Your task to perform on an android device: delete the emails in spam in the gmail app Image 0: 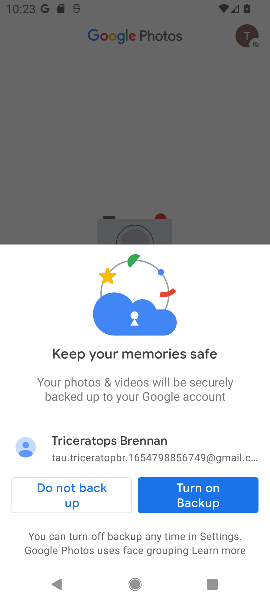
Step 0: click (75, 491)
Your task to perform on an android device: delete the emails in spam in the gmail app Image 1: 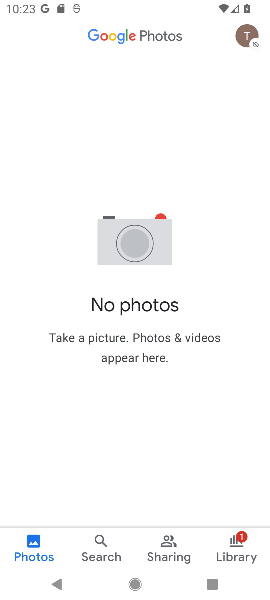
Step 1: press back button
Your task to perform on an android device: delete the emails in spam in the gmail app Image 2: 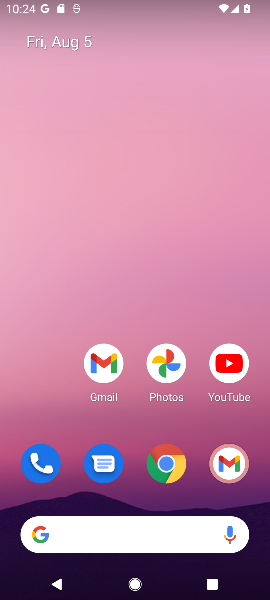
Step 2: drag from (180, 460) to (155, 16)
Your task to perform on an android device: delete the emails in spam in the gmail app Image 3: 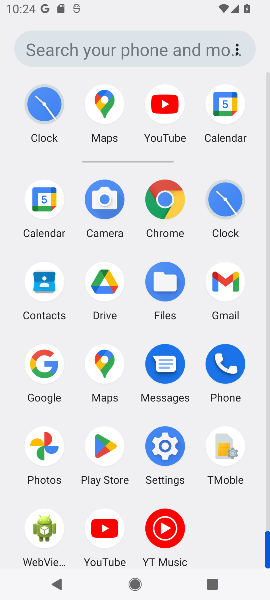
Step 3: drag from (208, 433) to (145, 0)
Your task to perform on an android device: delete the emails in spam in the gmail app Image 4: 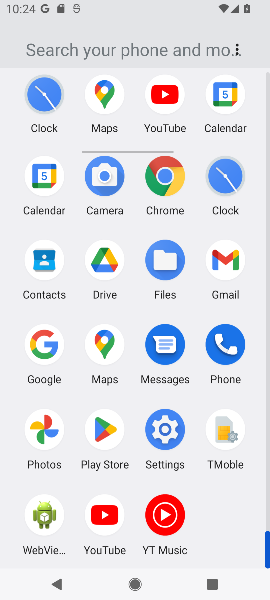
Step 4: drag from (161, 411) to (127, 114)
Your task to perform on an android device: delete the emails in spam in the gmail app Image 5: 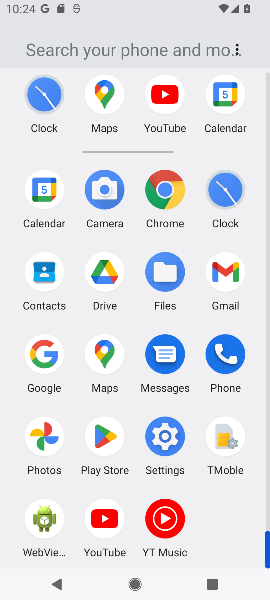
Step 5: click (221, 257)
Your task to perform on an android device: delete the emails in spam in the gmail app Image 6: 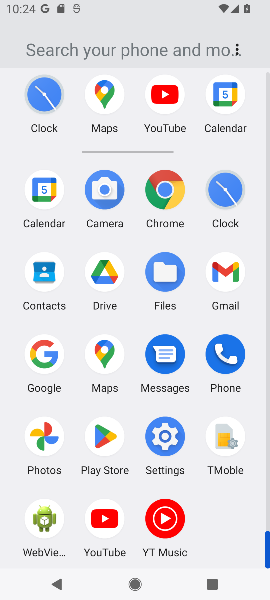
Step 6: click (221, 257)
Your task to perform on an android device: delete the emails in spam in the gmail app Image 7: 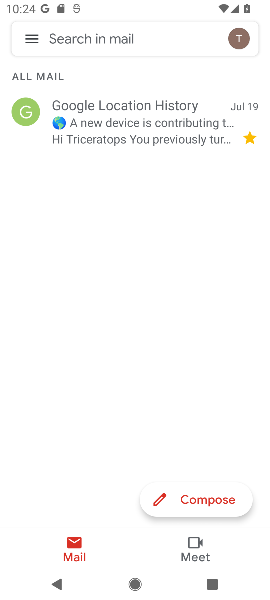
Step 7: click (221, 258)
Your task to perform on an android device: delete the emails in spam in the gmail app Image 8: 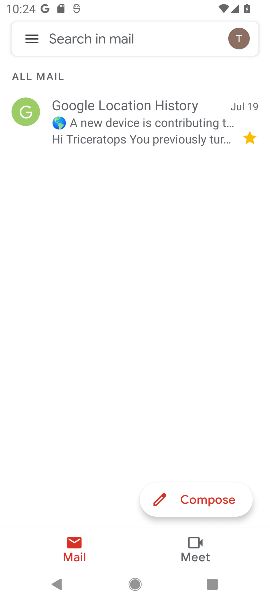
Step 8: click (32, 35)
Your task to perform on an android device: delete the emails in spam in the gmail app Image 9: 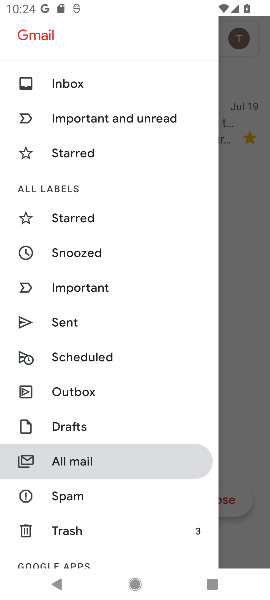
Step 9: click (74, 495)
Your task to perform on an android device: delete the emails in spam in the gmail app Image 10: 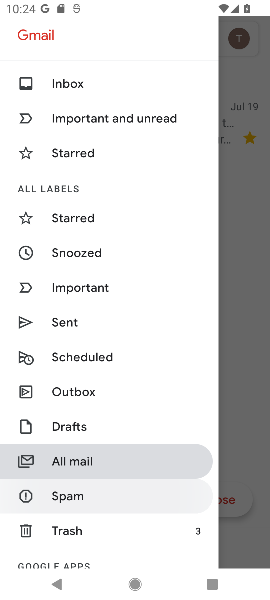
Step 10: click (74, 495)
Your task to perform on an android device: delete the emails in spam in the gmail app Image 11: 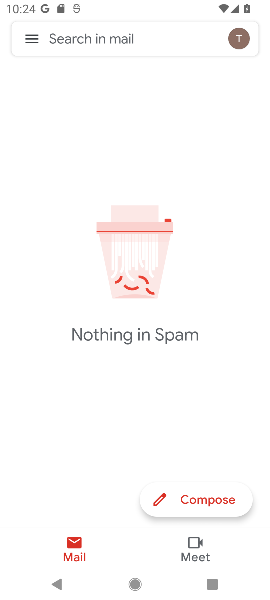
Step 11: task complete